Your task to perform on an android device: What's on my calendar tomorrow? Image 0: 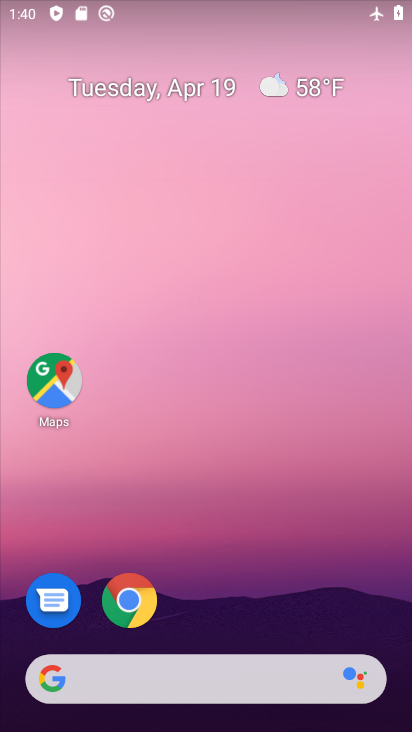
Step 0: drag from (202, 660) to (125, 26)
Your task to perform on an android device: What's on my calendar tomorrow? Image 1: 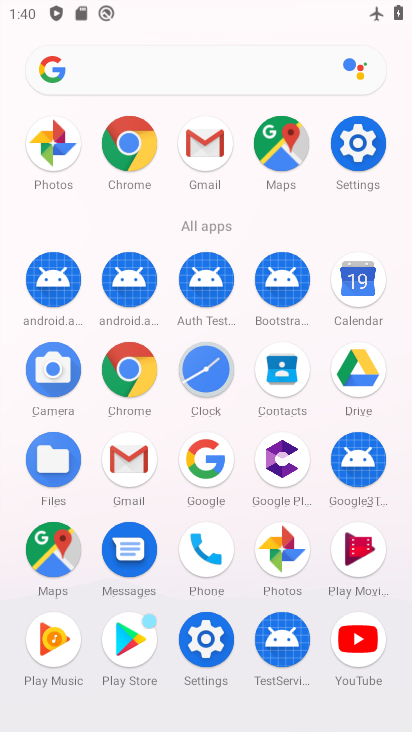
Step 1: click (360, 294)
Your task to perform on an android device: What's on my calendar tomorrow? Image 2: 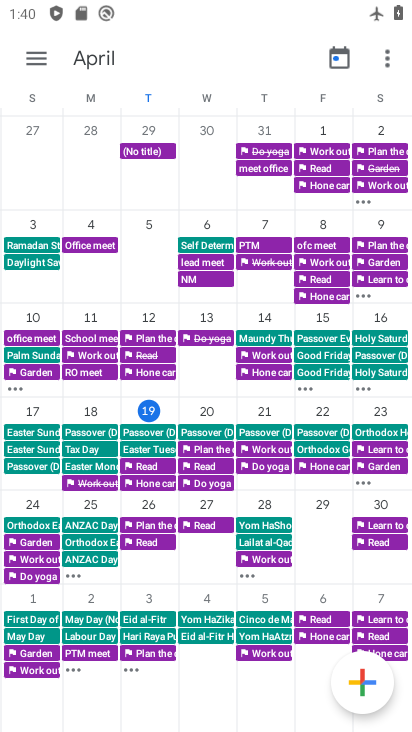
Step 2: click (39, 71)
Your task to perform on an android device: What's on my calendar tomorrow? Image 3: 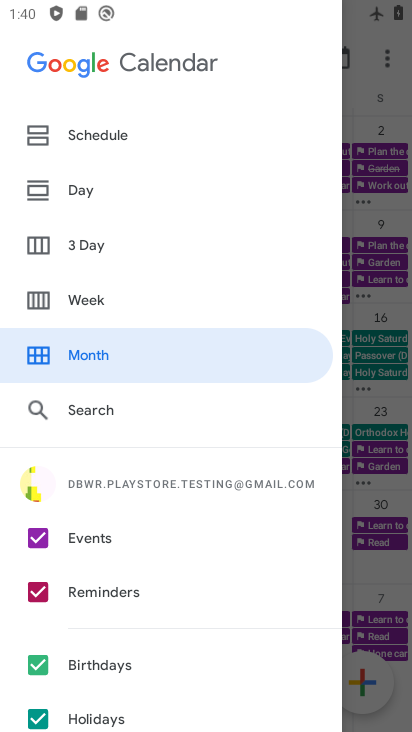
Step 3: click (95, 176)
Your task to perform on an android device: What's on my calendar tomorrow? Image 4: 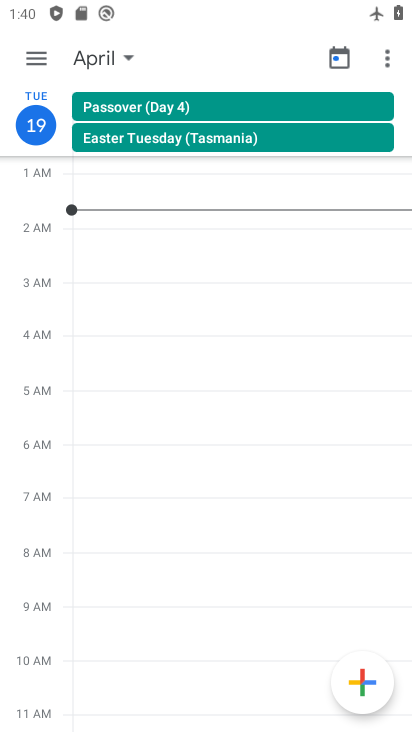
Step 4: task complete